Your task to perform on an android device: What's the weather going to be this weekend? Image 0: 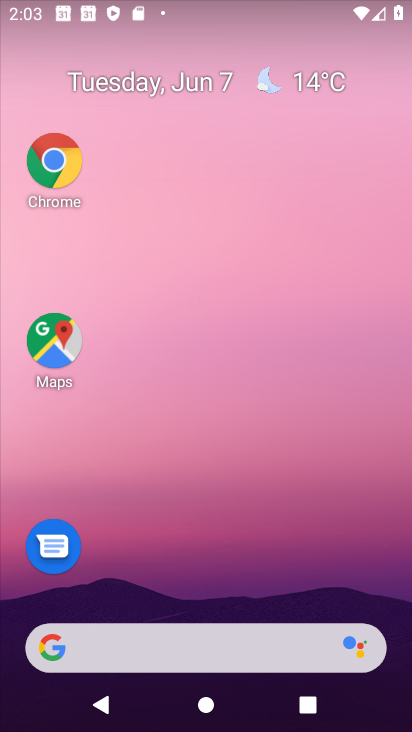
Step 0: drag from (242, 65) to (75, 6)
Your task to perform on an android device: What's the weather going to be this weekend? Image 1: 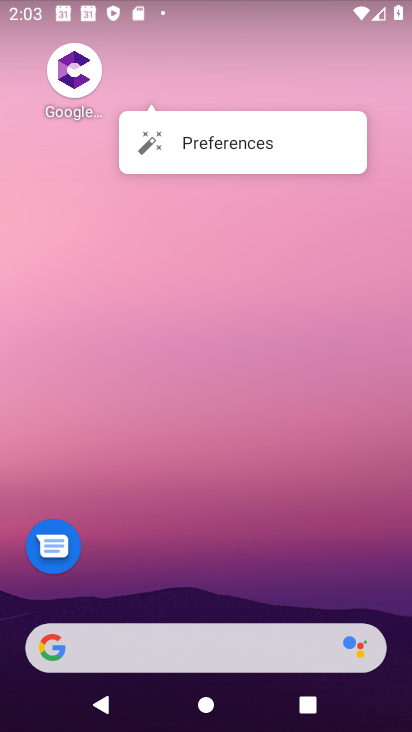
Step 1: drag from (172, 551) to (214, 89)
Your task to perform on an android device: What's the weather going to be this weekend? Image 2: 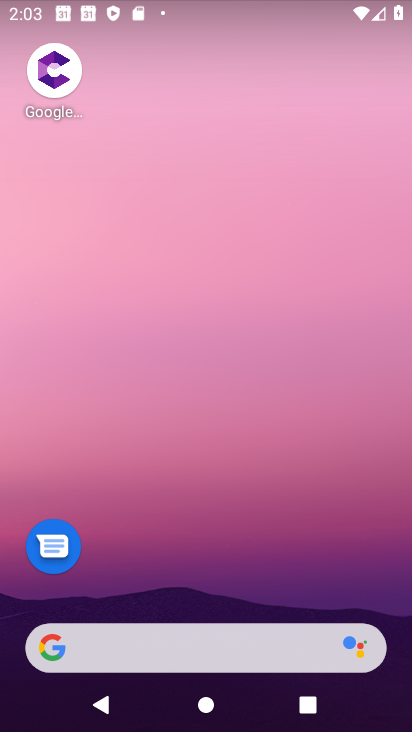
Step 2: drag from (167, 563) to (298, 51)
Your task to perform on an android device: What's the weather going to be this weekend? Image 3: 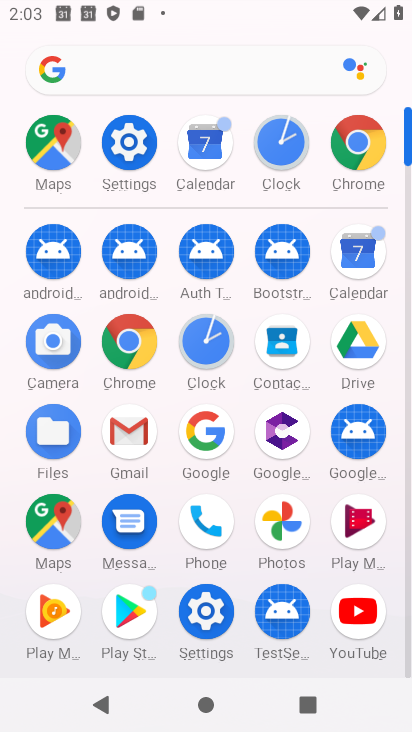
Step 3: click (354, 241)
Your task to perform on an android device: What's the weather going to be this weekend? Image 4: 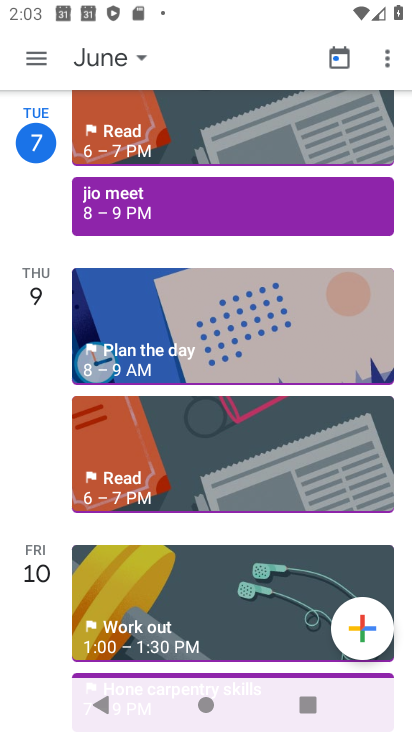
Step 4: press home button
Your task to perform on an android device: What's the weather going to be this weekend? Image 5: 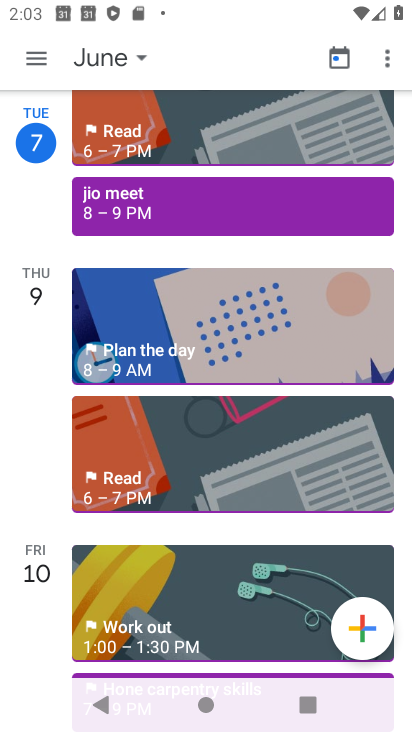
Step 5: click (206, 90)
Your task to perform on an android device: What's the weather going to be this weekend? Image 6: 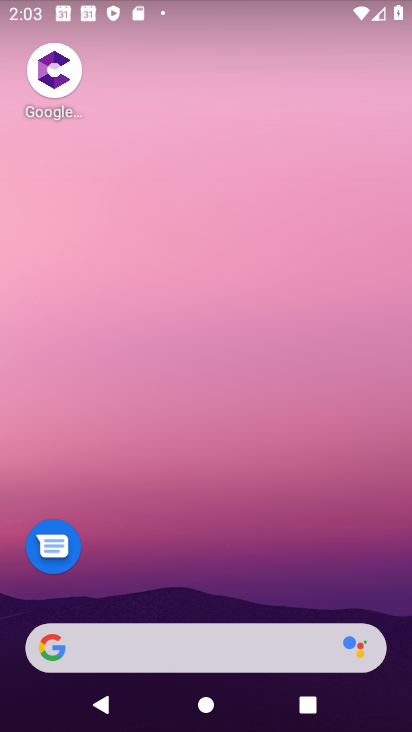
Step 6: drag from (173, 561) to (198, 0)
Your task to perform on an android device: What's the weather going to be this weekend? Image 7: 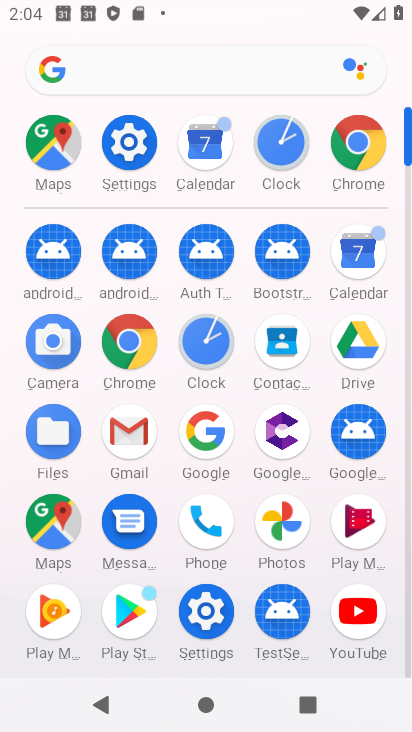
Step 7: click (126, 65)
Your task to perform on an android device: What's the weather going to be this weekend? Image 8: 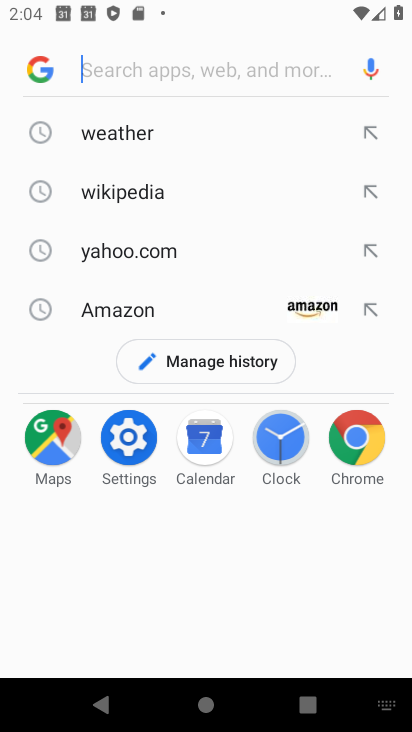
Step 8: type "weather going to be this weekend?"
Your task to perform on an android device: What's the weather going to be this weekend? Image 9: 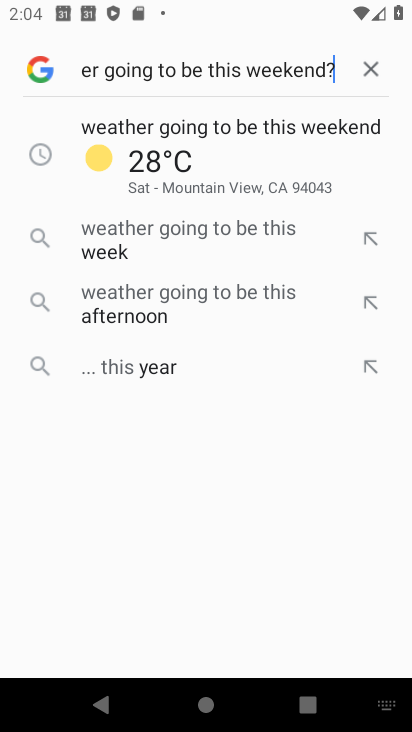
Step 9: type ""
Your task to perform on an android device: What's the weather going to be this weekend? Image 10: 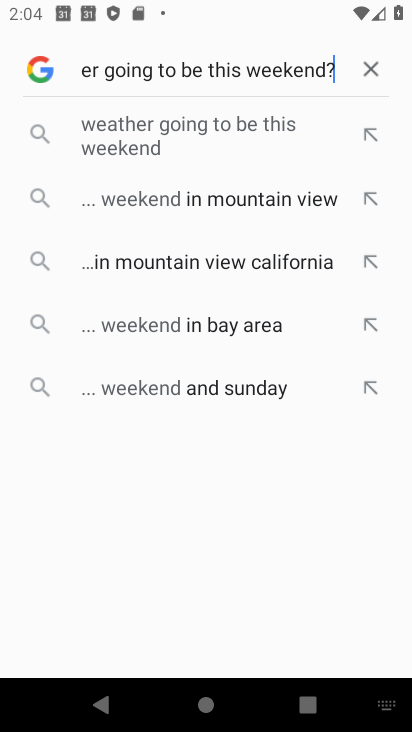
Step 10: click (123, 137)
Your task to perform on an android device: What's the weather going to be this weekend? Image 11: 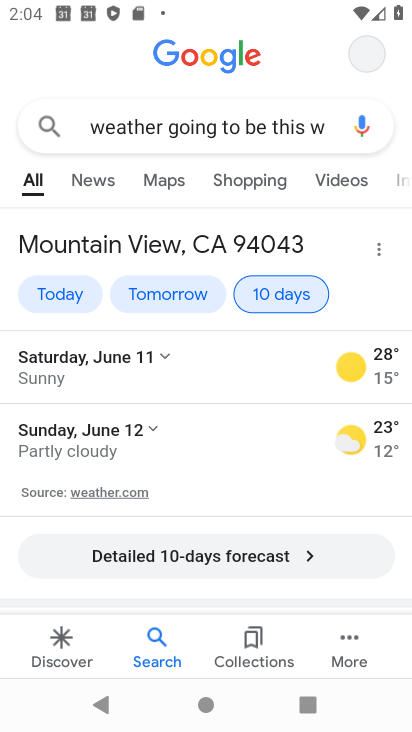
Step 11: task complete